Your task to perform on an android device: find snoozed emails in the gmail app Image 0: 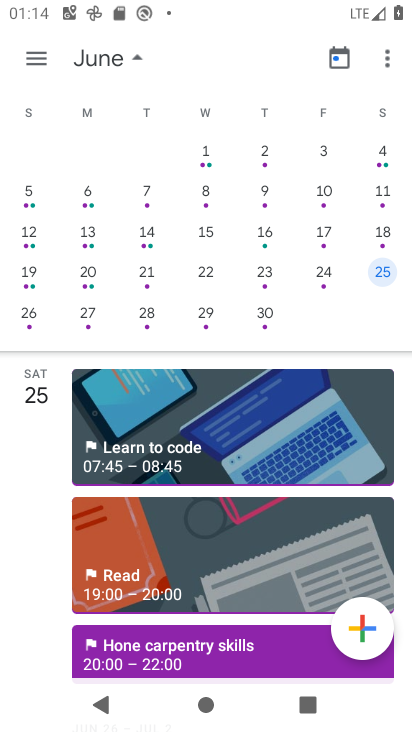
Step 0: press home button
Your task to perform on an android device: find snoozed emails in the gmail app Image 1: 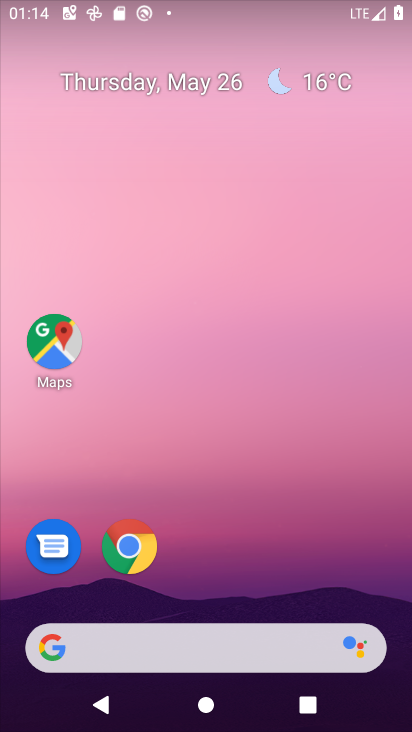
Step 1: drag from (215, 541) to (245, 160)
Your task to perform on an android device: find snoozed emails in the gmail app Image 2: 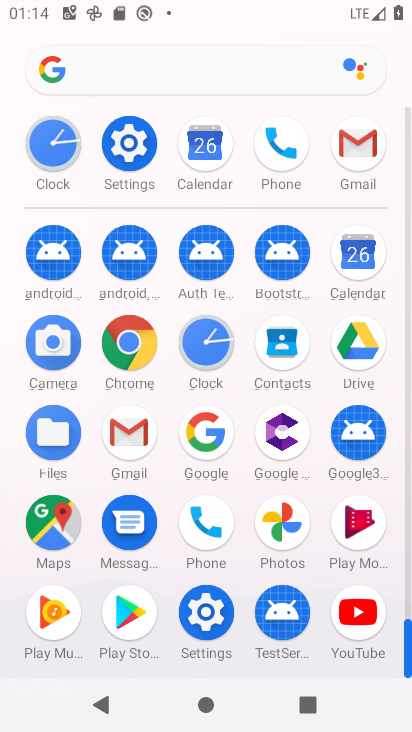
Step 2: click (357, 146)
Your task to perform on an android device: find snoozed emails in the gmail app Image 3: 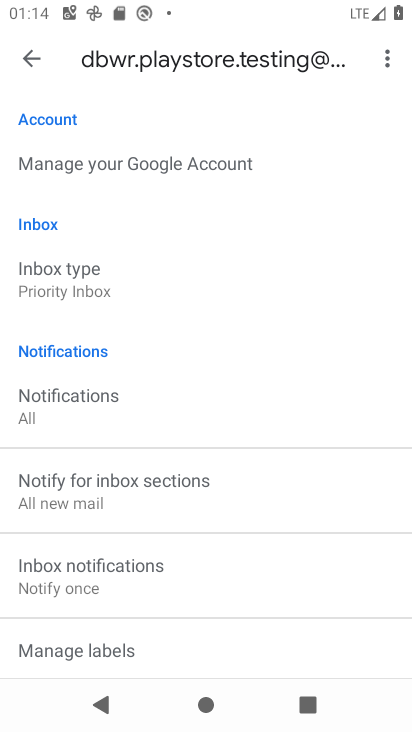
Step 3: click (37, 58)
Your task to perform on an android device: find snoozed emails in the gmail app Image 4: 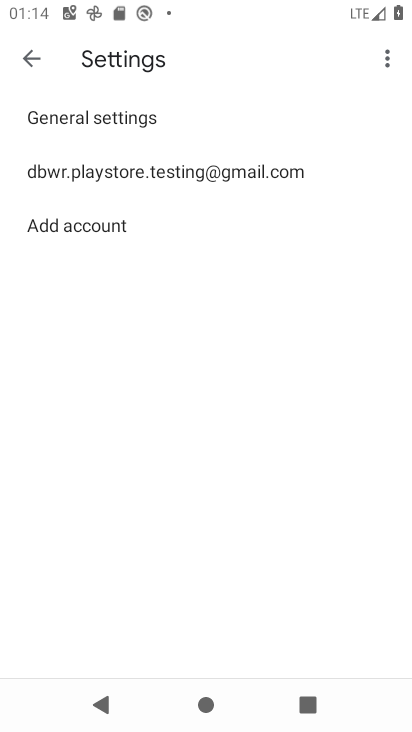
Step 4: click (38, 54)
Your task to perform on an android device: find snoozed emails in the gmail app Image 5: 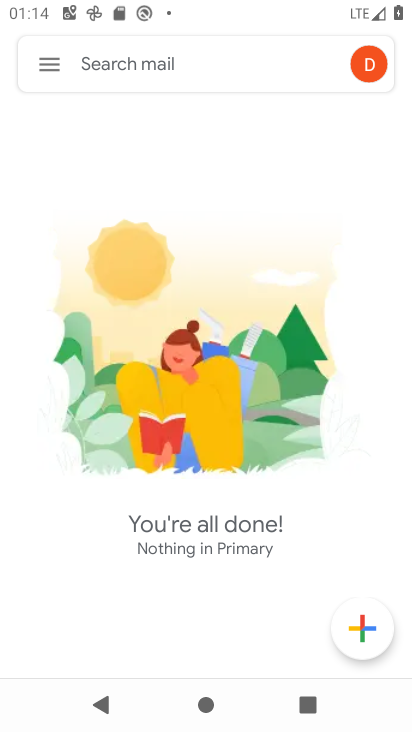
Step 5: click (44, 60)
Your task to perform on an android device: find snoozed emails in the gmail app Image 6: 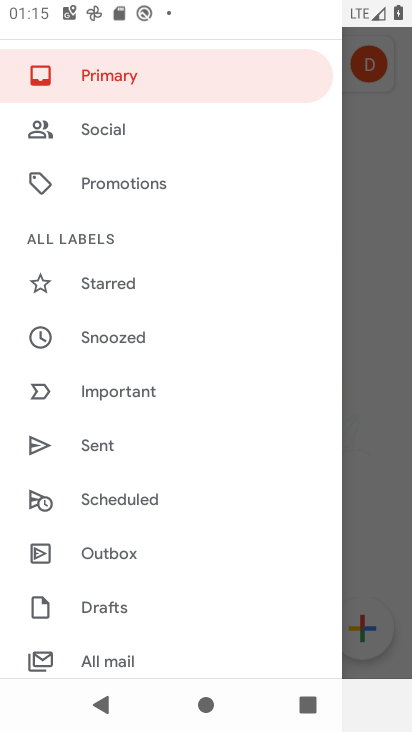
Step 6: click (130, 328)
Your task to perform on an android device: find snoozed emails in the gmail app Image 7: 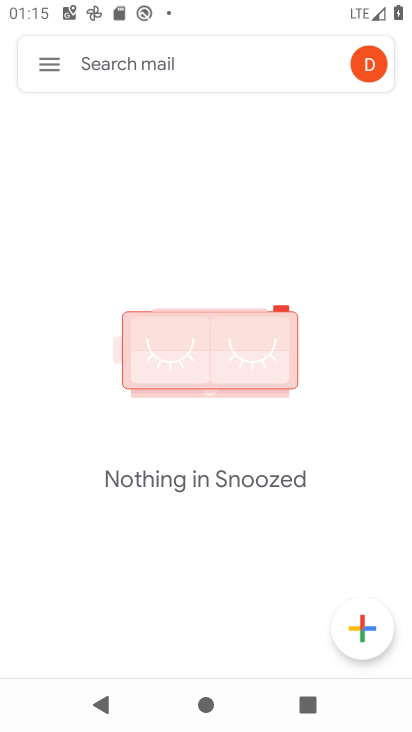
Step 7: task complete